Your task to perform on an android device: snooze an email in the gmail app Image 0: 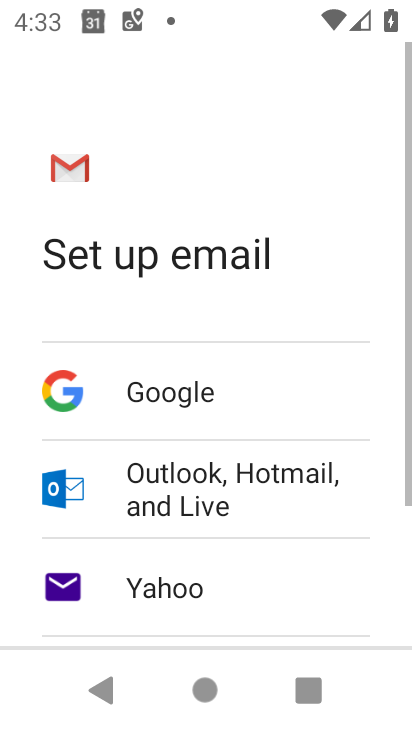
Step 0: press home button
Your task to perform on an android device: snooze an email in the gmail app Image 1: 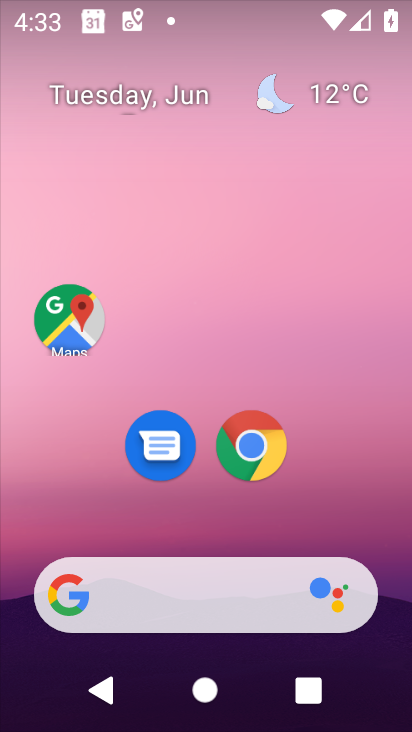
Step 1: drag from (345, 477) to (386, 29)
Your task to perform on an android device: snooze an email in the gmail app Image 2: 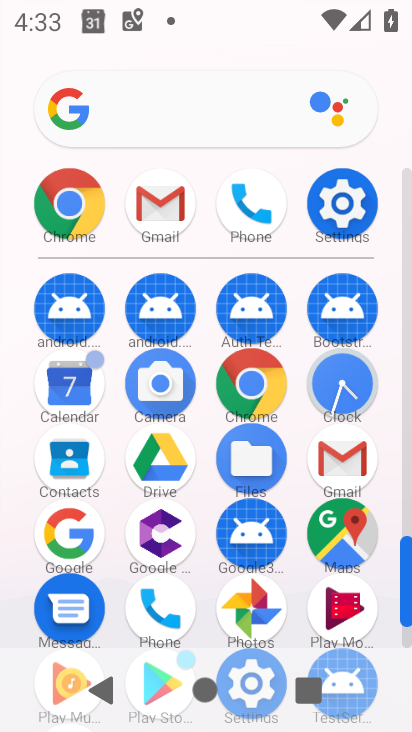
Step 2: click (172, 248)
Your task to perform on an android device: snooze an email in the gmail app Image 3: 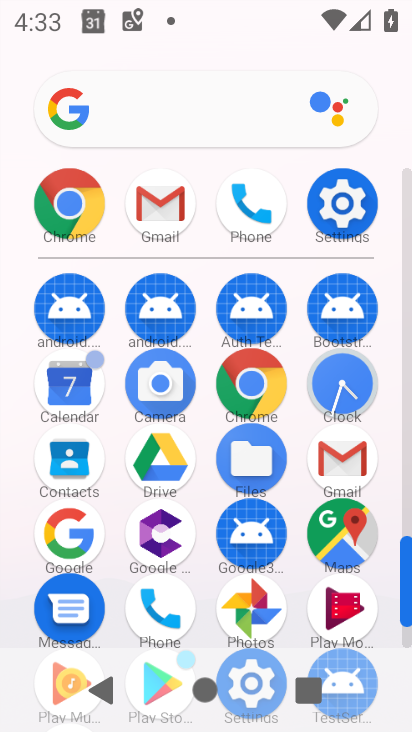
Step 3: click (175, 202)
Your task to perform on an android device: snooze an email in the gmail app Image 4: 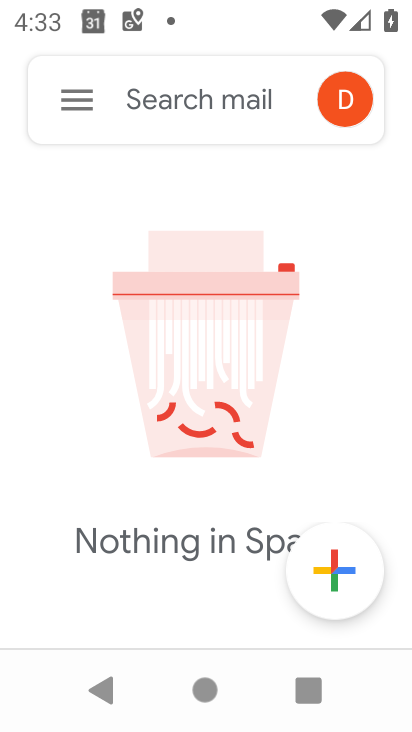
Step 4: click (87, 93)
Your task to perform on an android device: snooze an email in the gmail app Image 5: 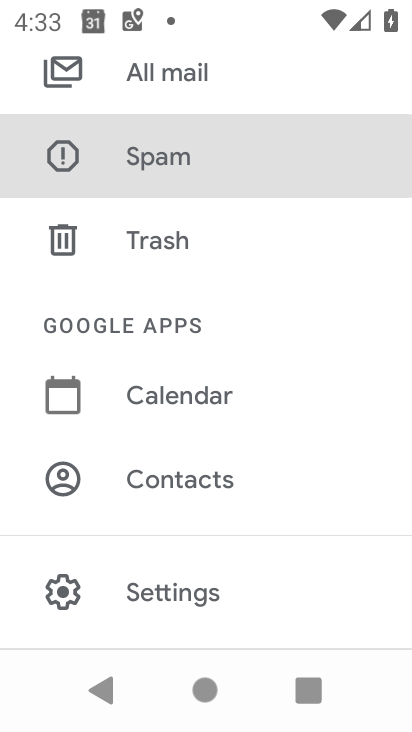
Step 5: drag from (176, 263) to (188, 642)
Your task to perform on an android device: snooze an email in the gmail app Image 6: 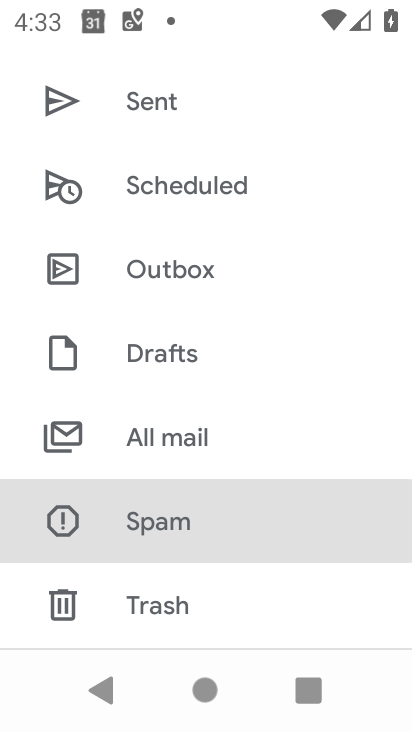
Step 6: drag from (145, 195) to (182, 428)
Your task to perform on an android device: snooze an email in the gmail app Image 7: 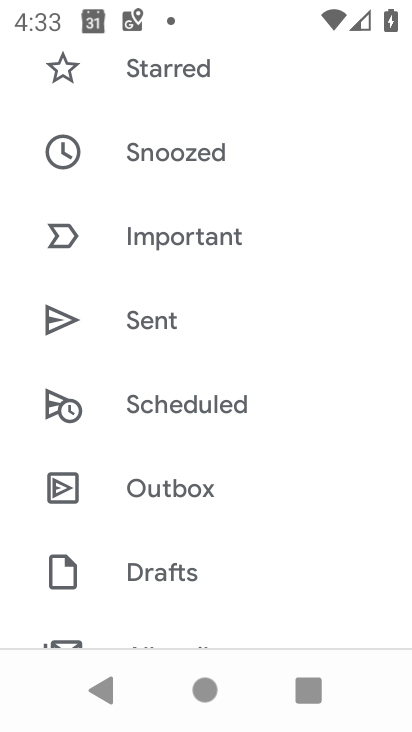
Step 7: drag from (166, 533) to (224, 135)
Your task to perform on an android device: snooze an email in the gmail app Image 8: 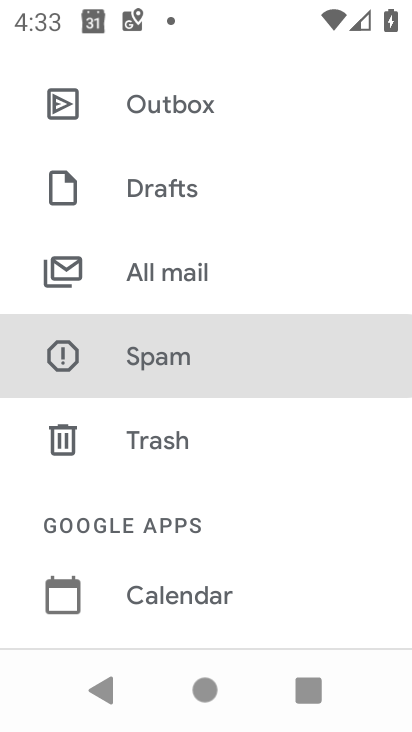
Step 8: click (153, 271)
Your task to perform on an android device: snooze an email in the gmail app Image 9: 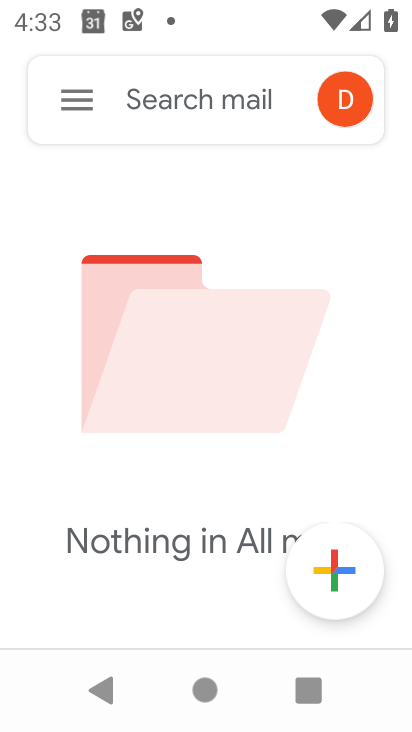
Step 9: task complete